Your task to perform on an android device: Open the phone app and click the voicemail tab. Image 0: 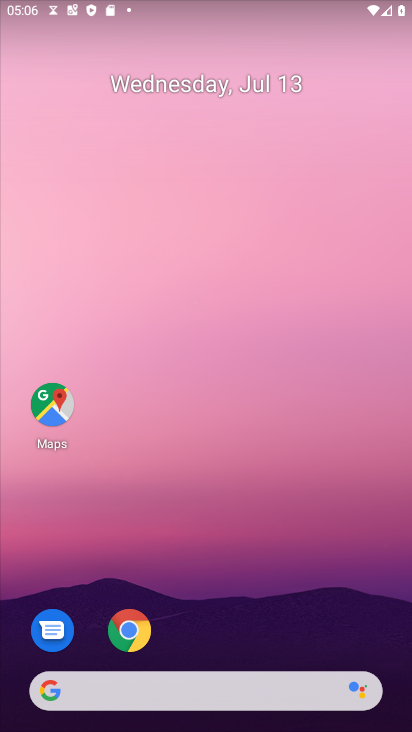
Step 0: drag from (228, 705) to (278, 38)
Your task to perform on an android device: Open the phone app and click the voicemail tab. Image 1: 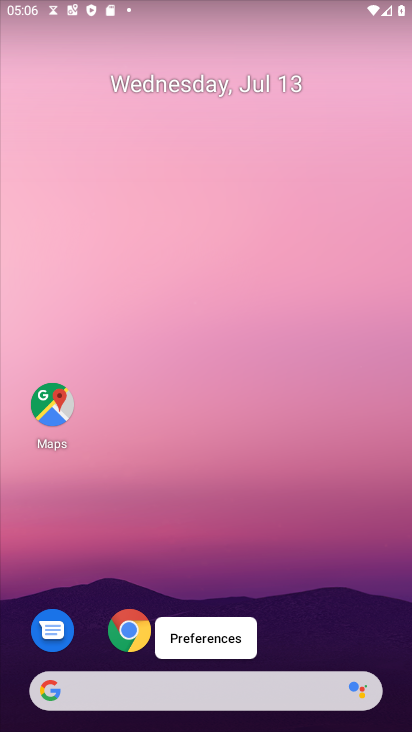
Step 1: drag from (309, 637) to (376, 131)
Your task to perform on an android device: Open the phone app and click the voicemail tab. Image 2: 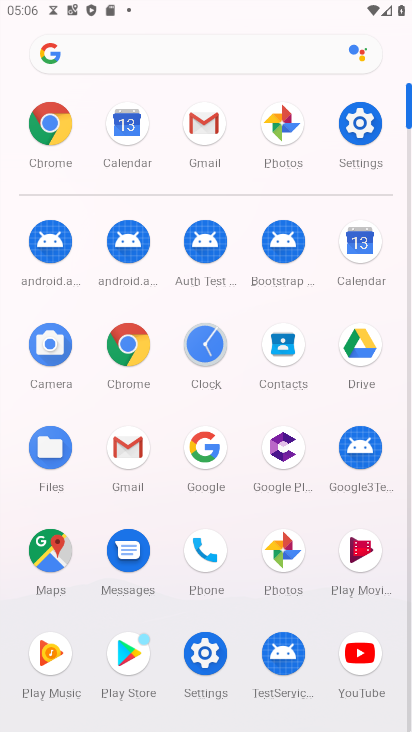
Step 2: click (203, 562)
Your task to perform on an android device: Open the phone app and click the voicemail tab. Image 3: 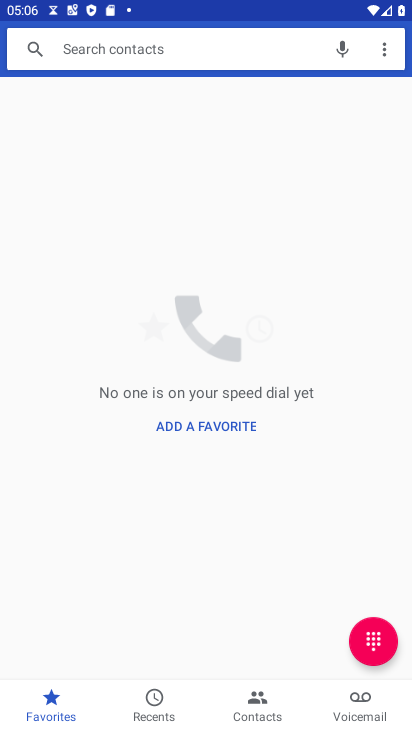
Step 3: click (367, 696)
Your task to perform on an android device: Open the phone app and click the voicemail tab. Image 4: 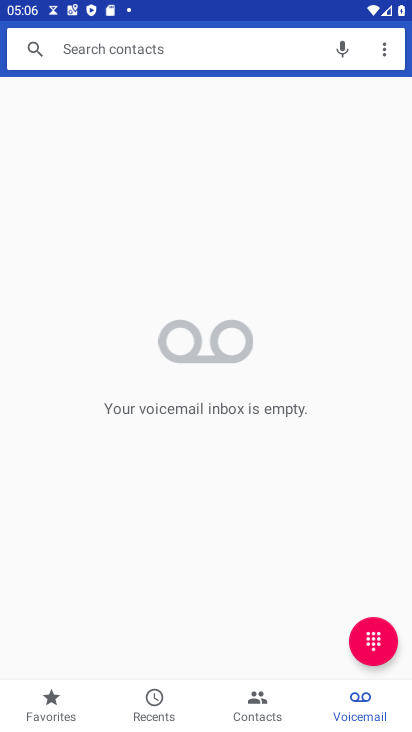
Step 4: task complete